Your task to perform on an android device: turn vacation reply on in the gmail app Image 0: 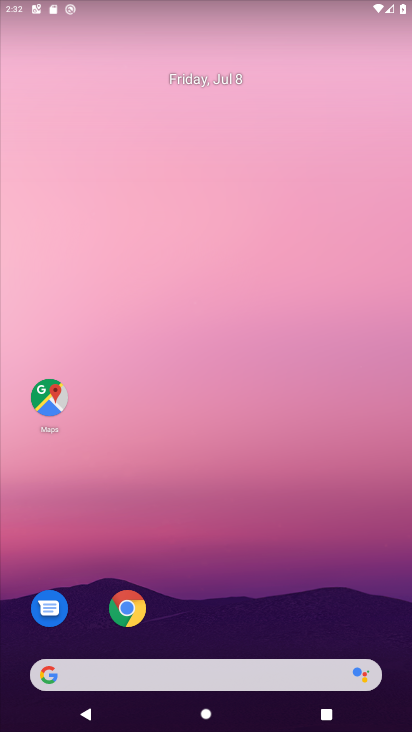
Step 0: drag from (270, 580) to (257, 153)
Your task to perform on an android device: turn vacation reply on in the gmail app Image 1: 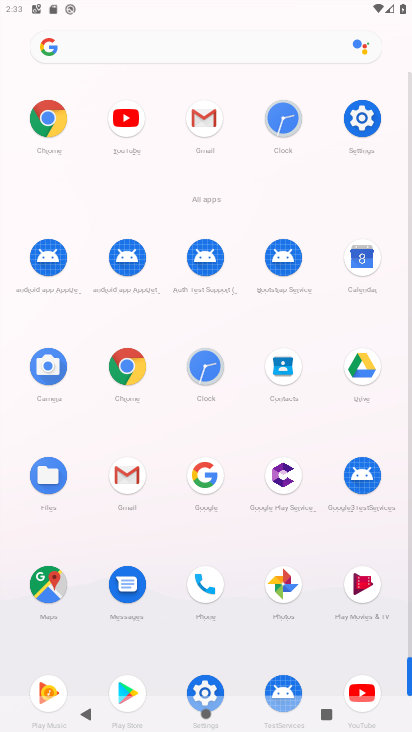
Step 1: click (196, 115)
Your task to perform on an android device: turn vacation reply on in the gmail app Image 2: 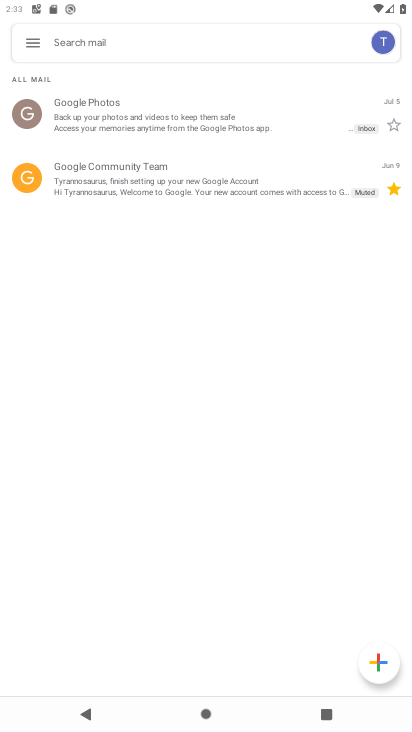
Step 2: click (17, 41)
Your task to perform on an android device: turn vacation reply on in the gmail app Image 3: 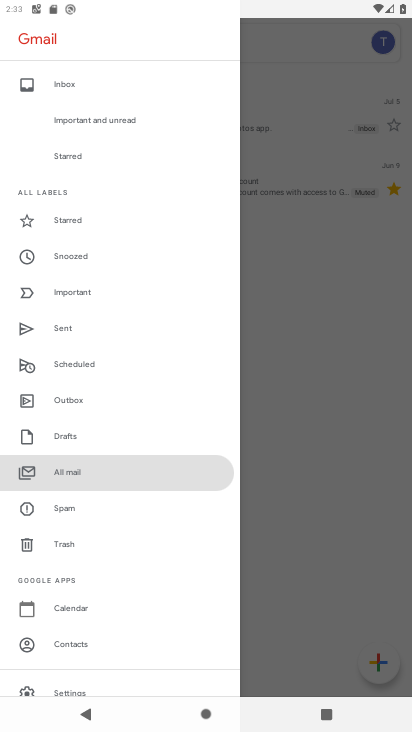
Step 3: drag from (106, 636) to (117, 272)
Your task to perform on an android device: turn vacation reply on in the gmail app Image 4: 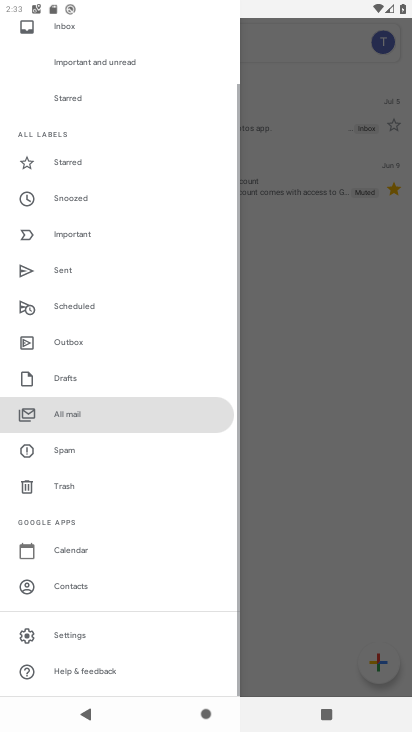
Step 4: click (86, 625)
Your task to perform on an android device: turn vacation reply on in the gmail app Image 5: 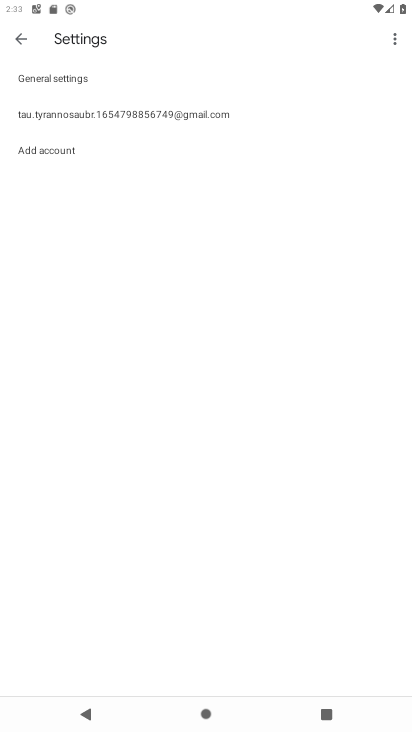
Step 5: click (43, 83)
Your task to perform on an android device: turn vacation reply on in the gmail app Image 6: 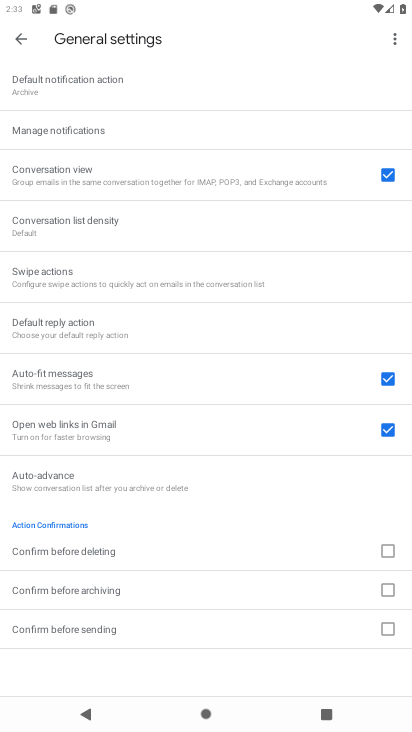
Step 6: drag from (163, 586) to (190, 341)
Your task to perform on an android device: turn vacation reply on in the gmail app Image 7: 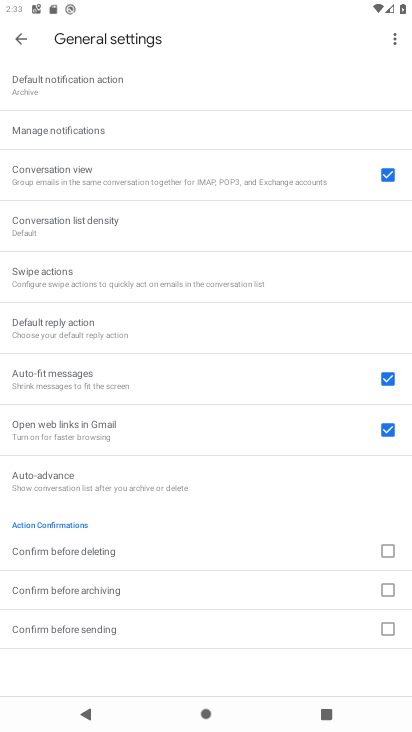
Step 7: drag from (180, 516) to (180, 170)
Your task to perform on an android device: turn vacation reply on in the gmail app Image 8: 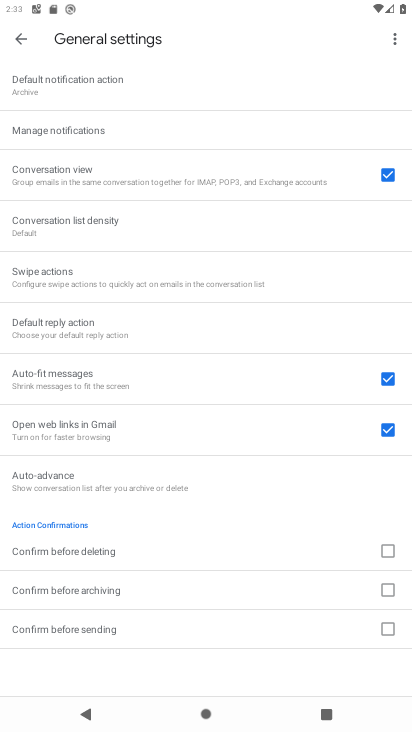
Step 8: click (22, 37)
Your task to perform on an android device: turn vacation reply on in the gmail app Image 9: 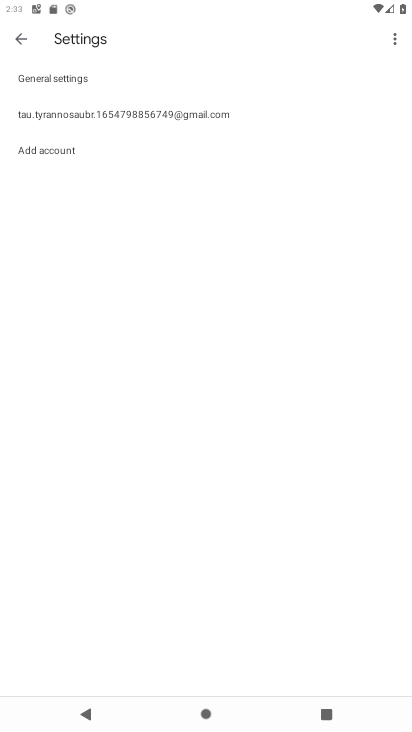
Step 9: click (153, 108)
Your task to perform on an android device: turn vacation reply on in the gmail app Image 10: 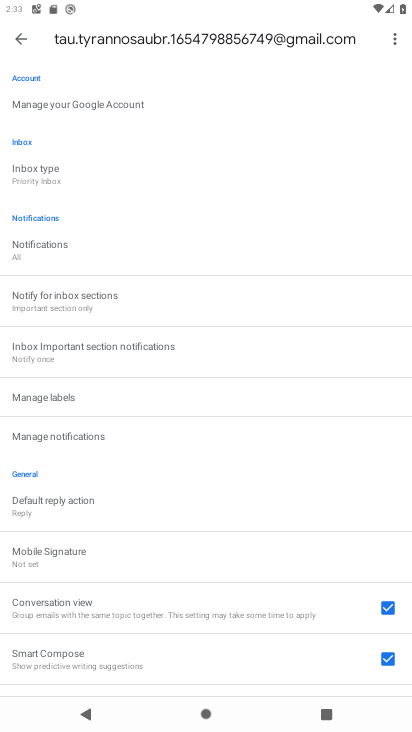
Step 10: drag from (173, 593) to (199, 314)
Your task to perform on an android device: turn vacation reply on in the gmail app Image 11: 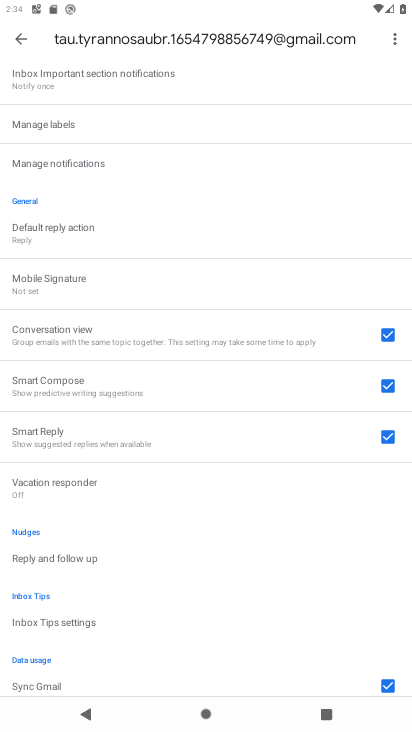
Step 11: click (106, 468)
Your task to perform on an android device: turn vacation reply on in the gmail app Image 12: 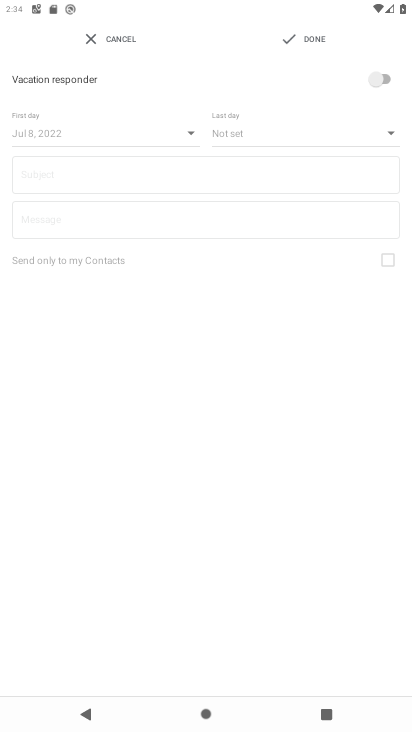
Step 12: click (364, 78)
Your task to perform on an android device: turn vacation reply on in the gmail app Image 13: 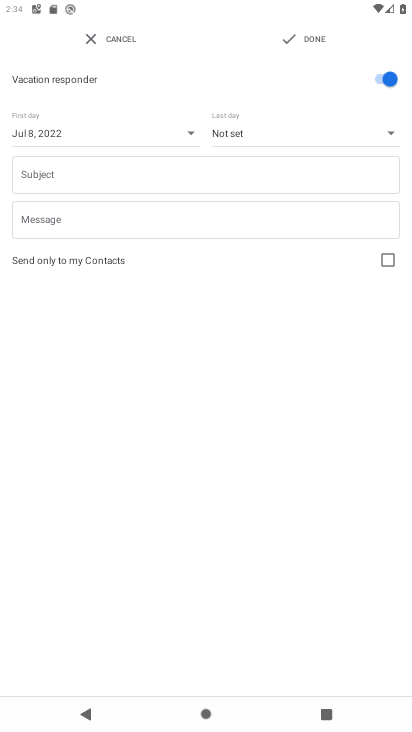
Step 13: click (306, 41)
Your task to perform on an android device: turn vacation reply on in the gmail app Image 14: 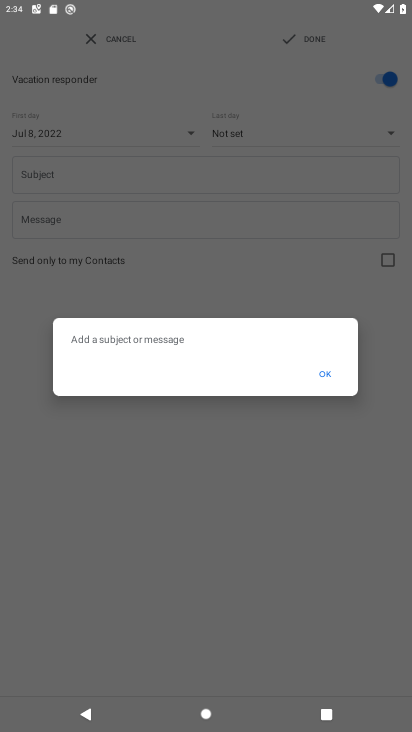
Step 14: click (329, 364)
Your task to perform on an android device: turn vacation reply on in the gmail app Image 15: 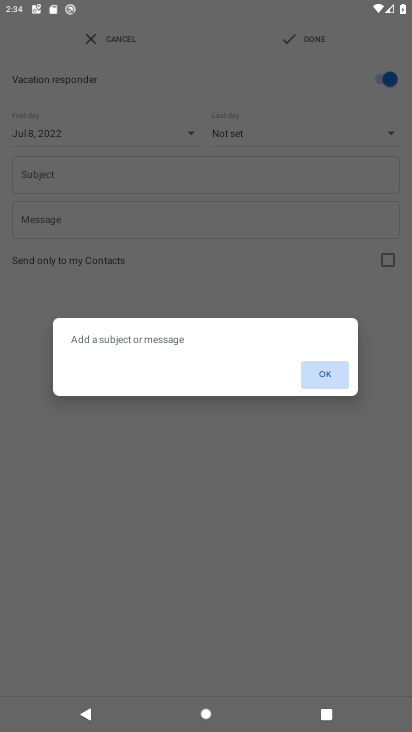
Step 15: click (329, 371)
Your task to perform on an android device: turn vacation reply on in the gmail app Image 16: 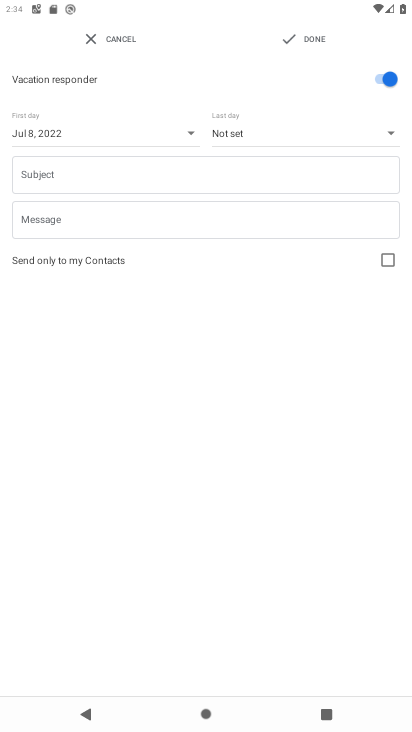
Step 16: task complete